Your task to perform on an android device: Set an alarm for 7pm Image 0: 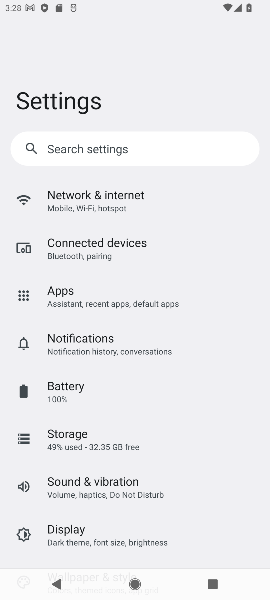
Step 0: press home button
Your task to perform on an android device: Set an alarm for 7pm Image 1: 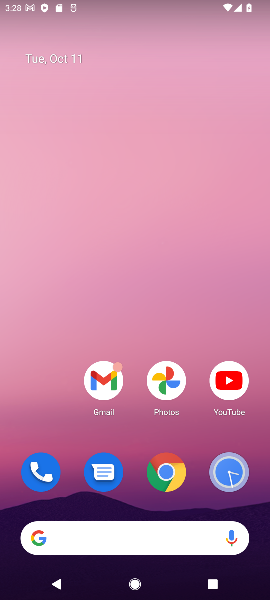
Step 1: click (221, 475)
Your task to perform on an android device: Set an alarm for 7pm Image 2: 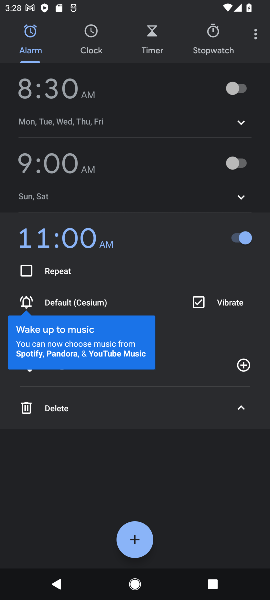
Step 2: click (134, 530)
Your task to perform on an android device: Set an alarm for 7pm Image 3: 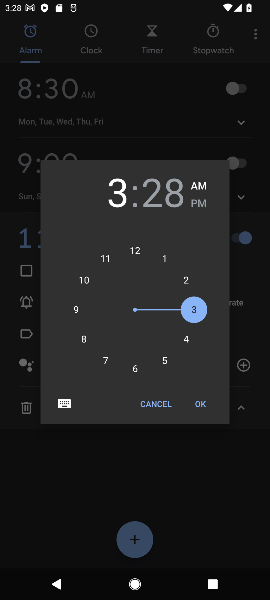
Step 3: click (107, 364)
Your task to perform on an android device: Set an alarm for 7pm Image 4: 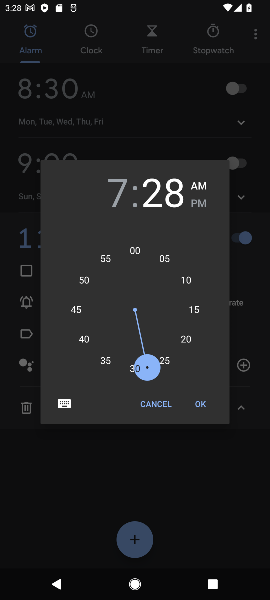
Step 4: click (136, 250)
Your task to perform on an android device: Set an alarm for 7pm Image 5: 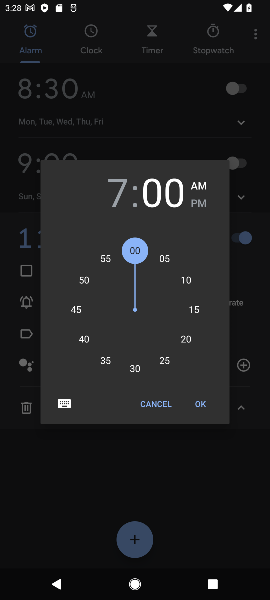
Step 5: click (202, 204)
Your task to perform on an android device: Set an alarm for 7pm Image 6: 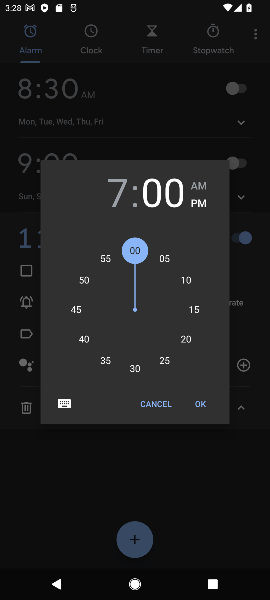
Step 6: click (206, 405)
Your task to perform on an android device: Set an alarm for 7pm Image 7: 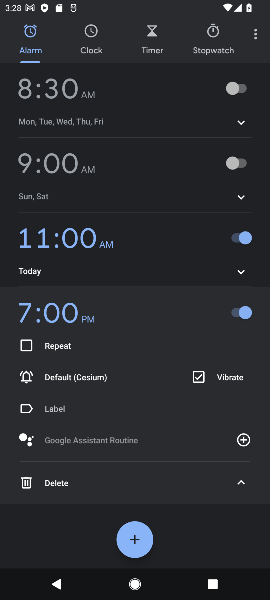
Step 7: task complete